Your task to perform on an android device: Go to display settings Image 0: 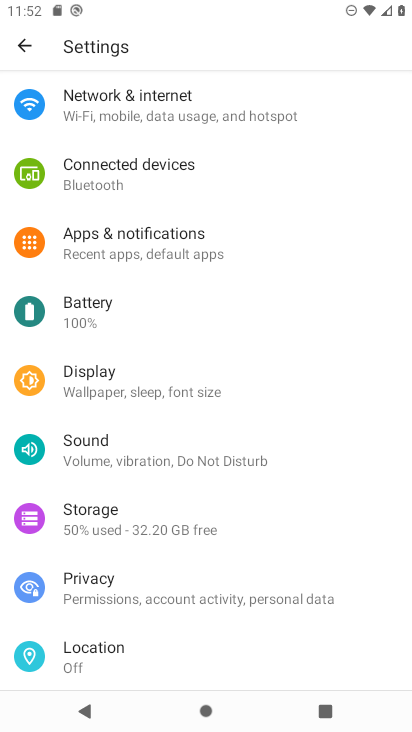
Step 0: press home button
Your task to perform on an android device: Go to display settings Image 1: 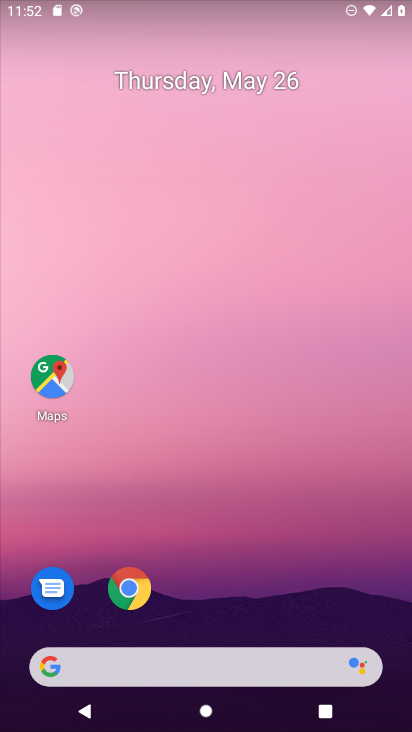
Step 1: drag from (375, 619) to (309, 32)
Your task to perform on an android device: Go to display settings Image 2: 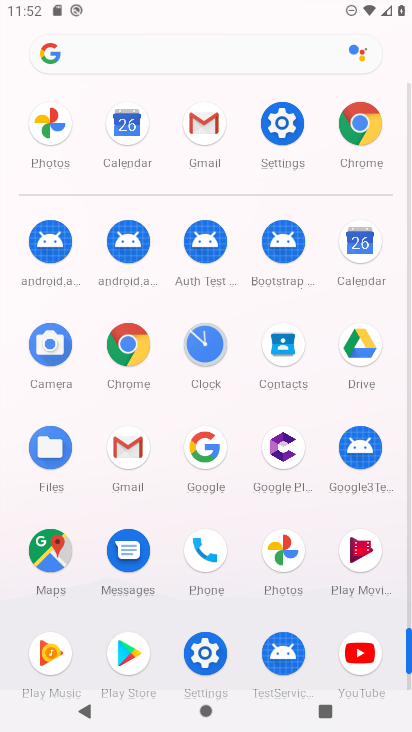
Step 2: click (205, 653)
Your task to perform on an android device: Go to display settings Image 3: 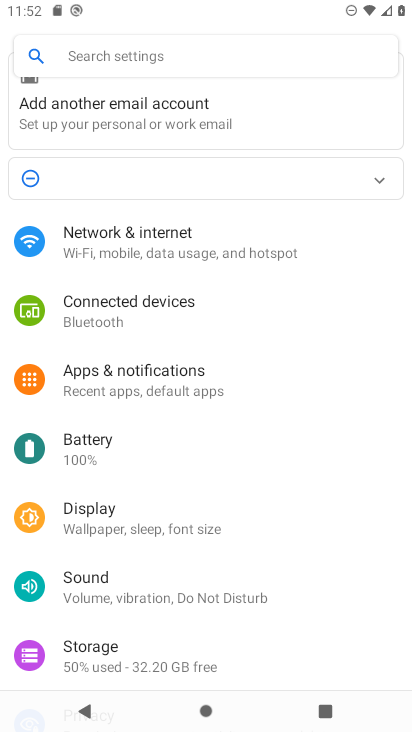
Step 3: click (97, 516)
Your task to perform on an android device: Go to display settings Image 4: 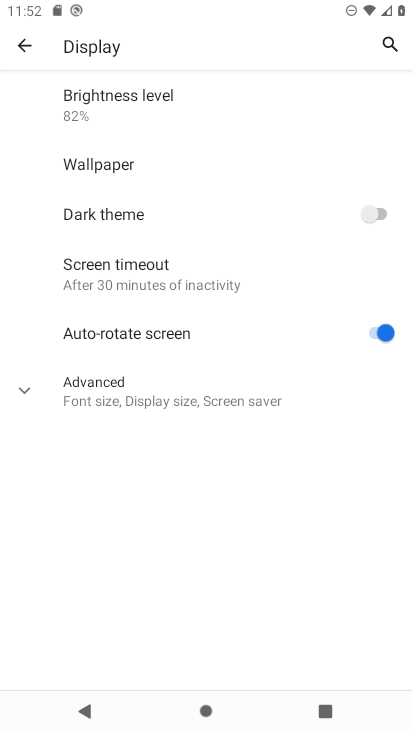
Step 4: click (24, 391)
Your task to perform on an android device: Go to display settings Image 5: 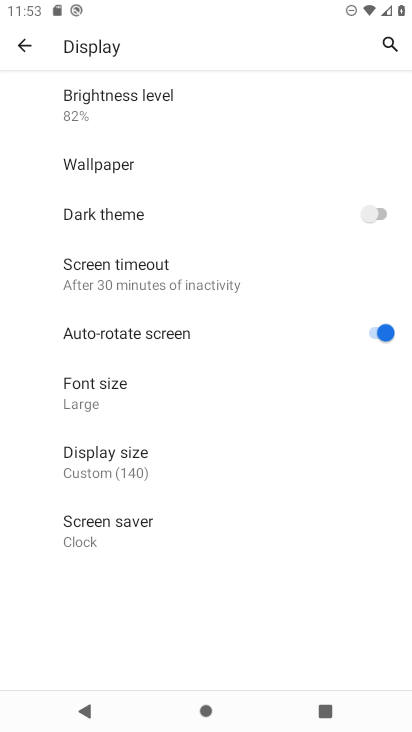
Step 5: task complete